Your task to perform on an android device: Open maps Image 0: 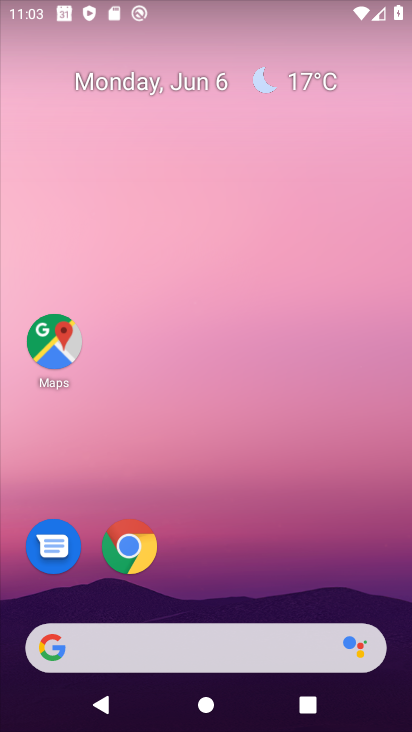
Step 0: click (53, 339)
Your task to perform on an android device: Open maps Image 1: 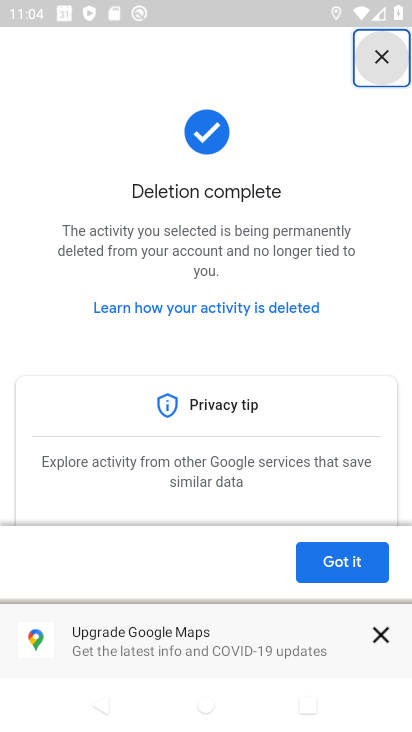
Step 1: task complete